Your task to perform on an android device: open app "Etsy: Buy & Sell Unique Items" (install if not already installed) Image 0: 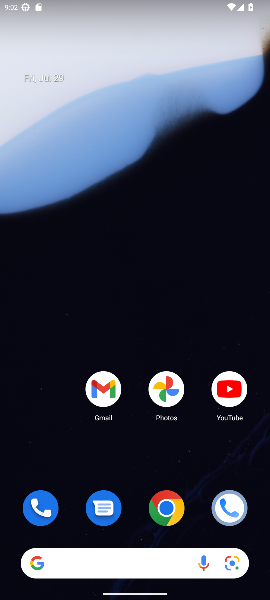
Step 0: drag from (168, 571) to (178, 3)
Your task to perform on an android device: open app "Etsy: Buy & Sell Unique Items" (install if not already installed) Image 1: 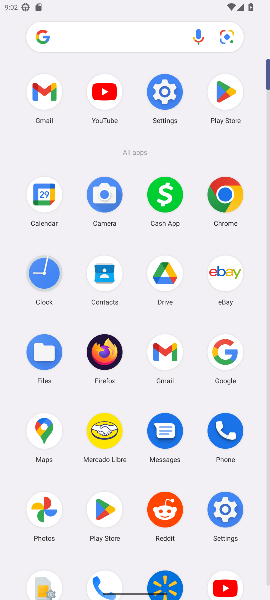
Step 1: click (226, 92)
Your task to perform on an android device: open app "Etsy: Buy & Sell Unique Items" (install if not already installed) Image 2: 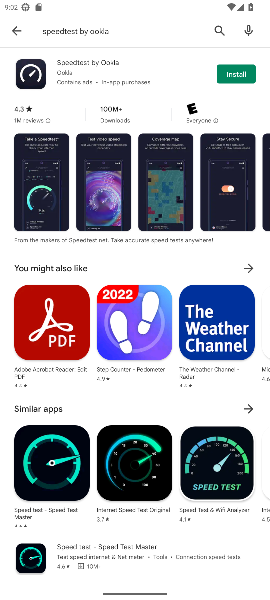
Step 2: click (219, 31)
Your task to perform on an android device: open app "Etsy: Buy & Sell Unique Items" (install if not already installed) Image 3: 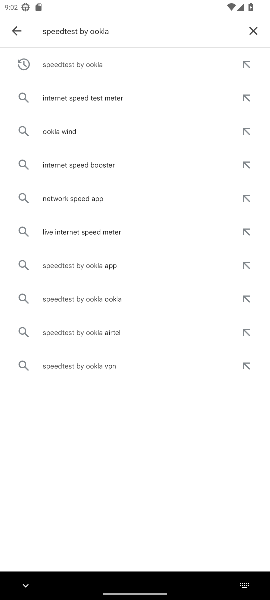
Step 3: click (253, 29)
Your task to perform on an android device: open app "Etsy: Buy & Sell Unique Items" (install if not already installed) Image 4: 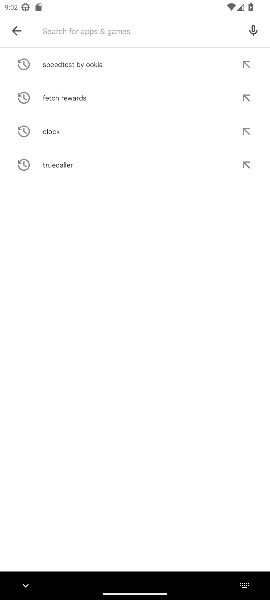
Step 4: type "etsy: buy & sell unique items"
Your task to perform on an android device: open app "Etsy: Buy & Sell Unique Items" (install if not already installed) Image 5: 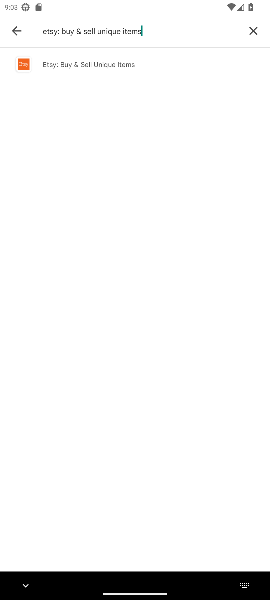
Step 5: click (93, 66)
Your task to perform on an android device: open app "Etsy: Buy & Sell Unique Items" (install if not already installed) Image 6: 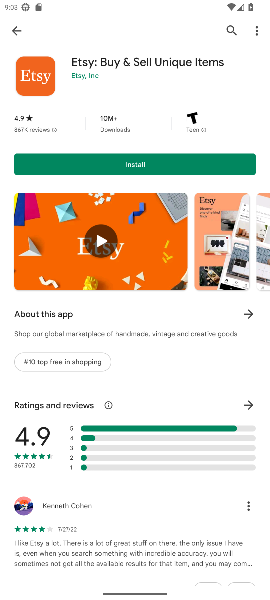
Step 6: click (142, 165)
Your task to perform on an android device: open app "Etsy: Buy & Sell Unique Items" (install if not already installed) Image 7: 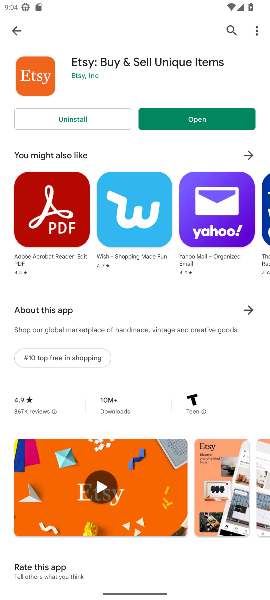
Step 7: click (212, 117)
Your task to perform on an android device: open app "Etsy: Buy & Sell Unique Items" (install if not already installed) Image 8: 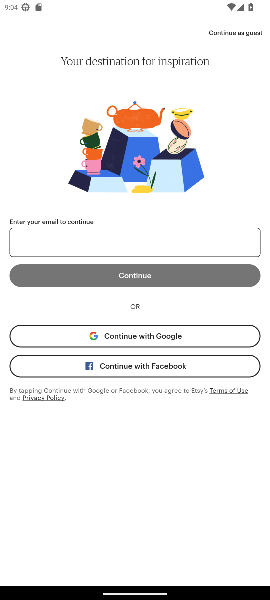
Step 8: task complete